Your task to perform on an android device: delete location history Image 0: 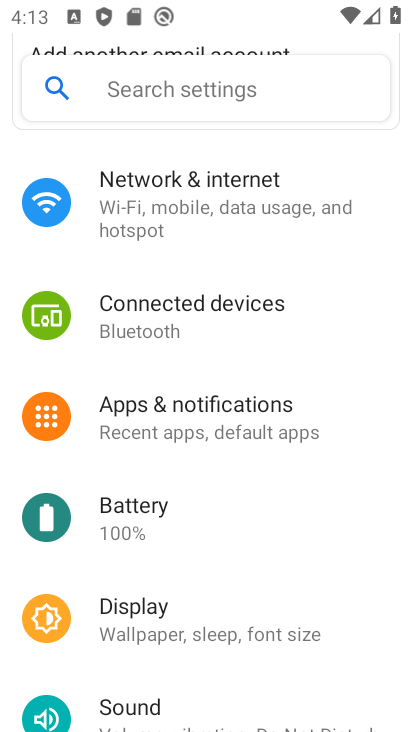
Step 0: press home button
Your task to perform on an android device: delete location history Image 1: 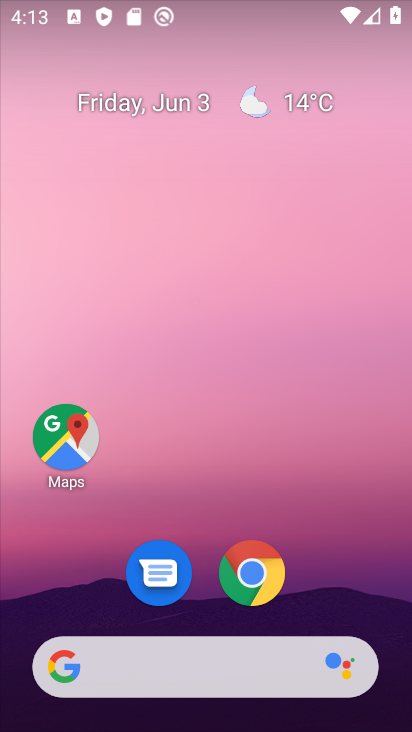
Step 1: drag from (226, 202) to (226, 1)
Your task to perform on an android device: delete location history Image 2: 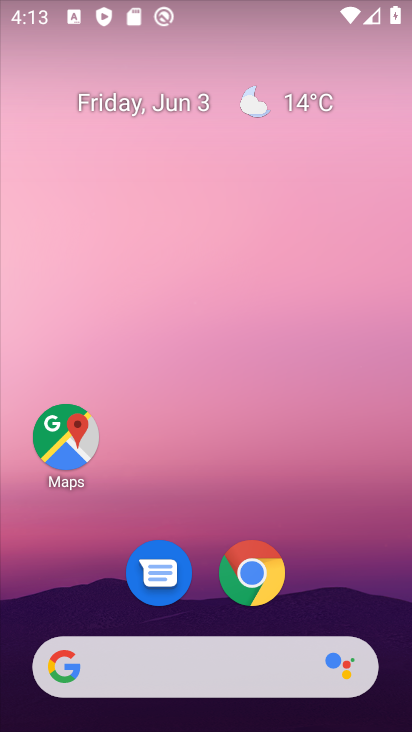
Step 2: drag from (280, 671) to (320, 27)
Your task to perform on an android device: delete location history Image 3: 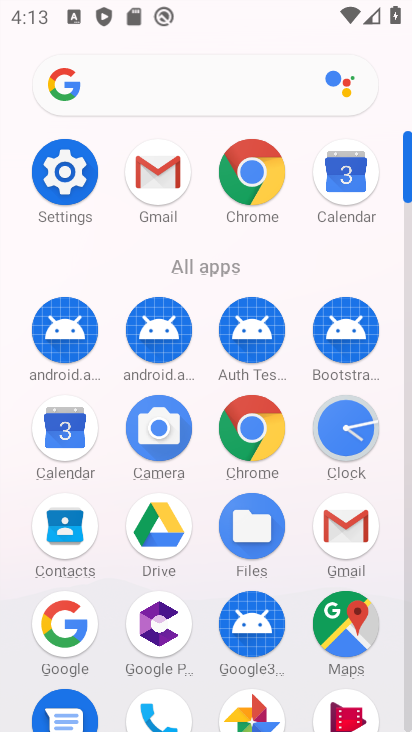
Step 3: click (88, 175)
Your task to perform on an android device: delete location history Image 4: 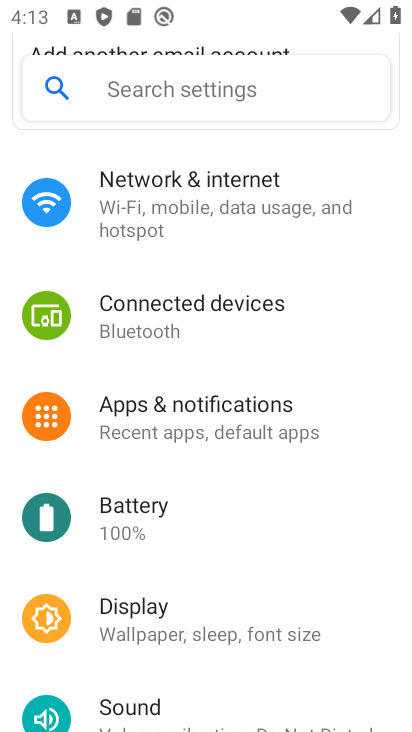
Step 4: press home button
Your task to perform on an android device: delete location history Image 5: 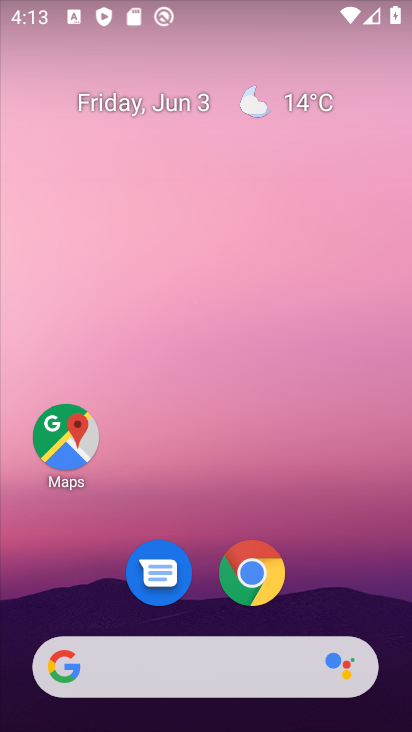
Step 5: drag from (233, 669) to (196, 53)
Your task to perform on an android device: delete location history Image 6: 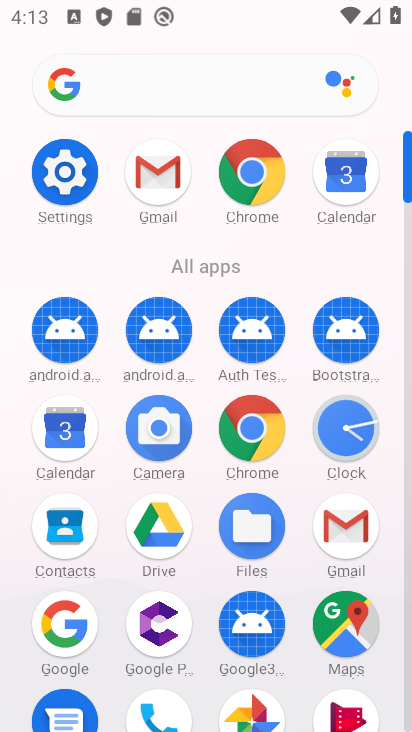
Step 6: click (348, 624)
Your task to perform on an android device: delete location history Image 7: 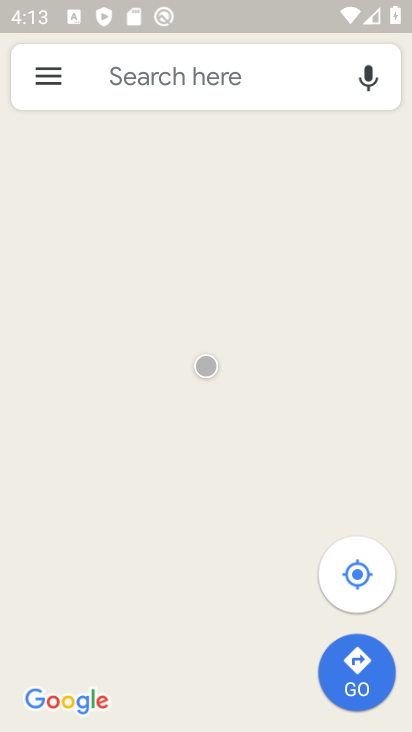
Step 7: click (46, 78)
Your task to perform on an android device: delete location history Image 8: 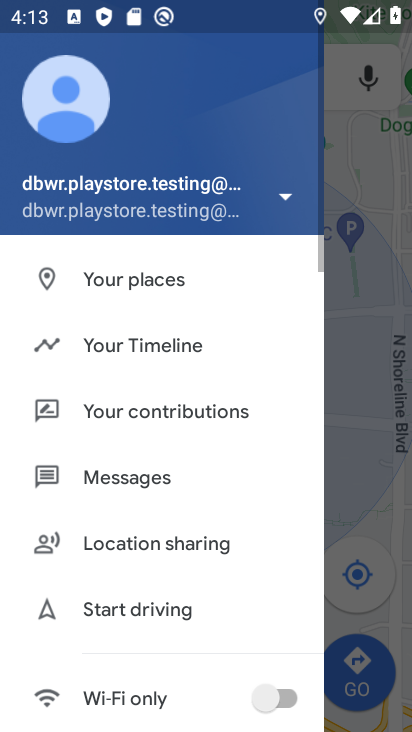
Step 8: drag from (165, 650) to (183, 395)
Your task to perform on an android device: delete location history Image 9: 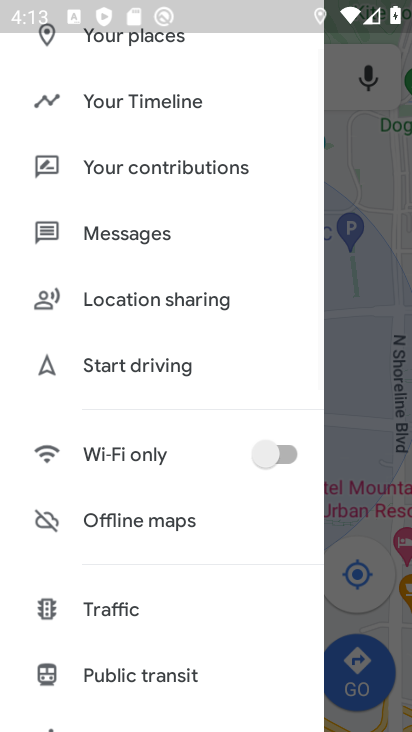
Step 9: click (168, 80)
Your task to perform on an android device: delete location history Image 10: 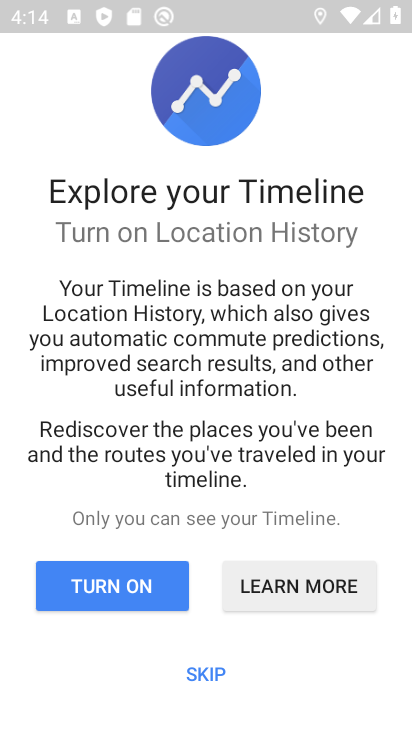
Step 10: click (202, 678)
Your task to perform on an android device: delete location history Image 11: 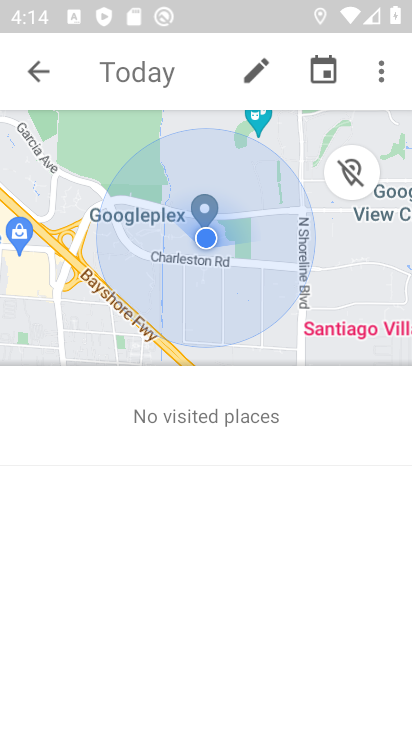
Step 11: click (377, 79)
Your task to perform on an android device: delete location history Image 12: 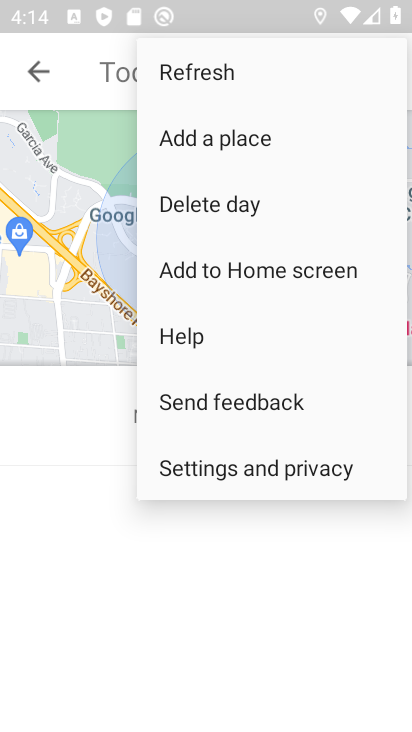
Step 12: click (266, 470)
Your task to perform on an android device: delete location history Image 13: 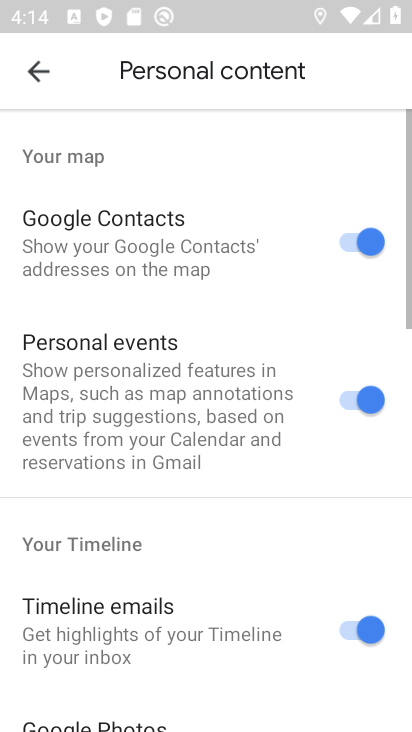
Step 13: drag from (298, 641) to (282, 7)
Your task to perform on an android device: delete location history Image 14: 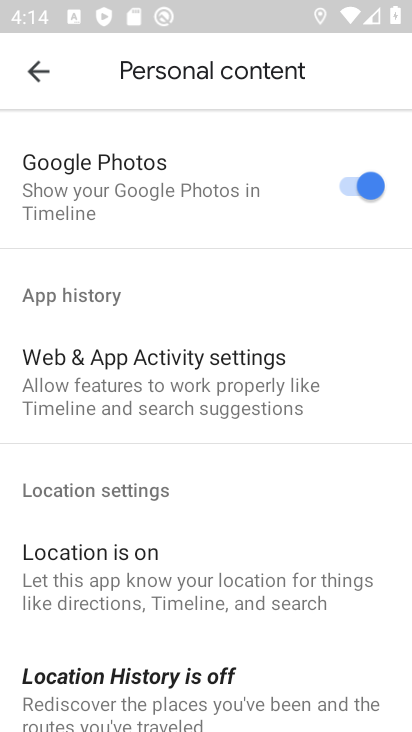
Step 14: drag from (212, 689) to (260, 215)
Your task to perform on an android device: delete location history Image 15: 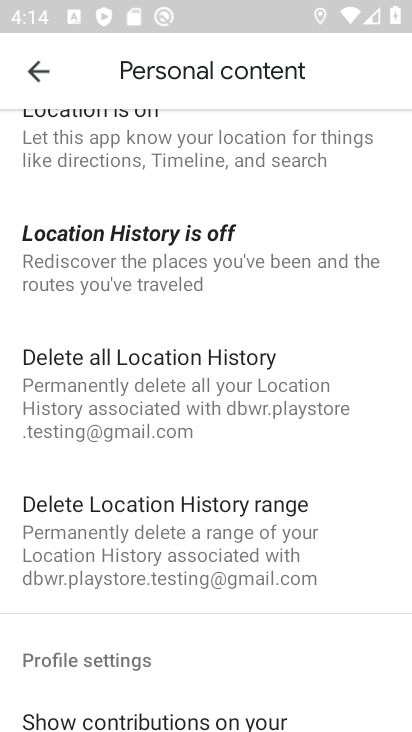
Step 15: click (213, 452)
Your task to perform on an android device: delete location history Image 16: 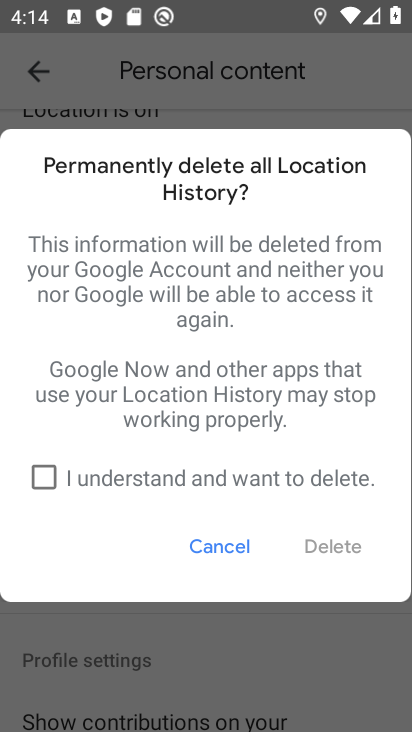
Step 16: click (33, 475)
Your task to perform on an android device: delete location history Image 17: 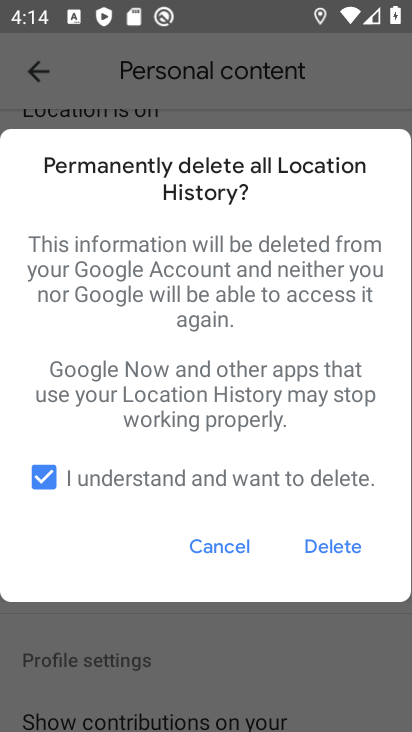
Step 17: click (349, 542)
Your task to perform on an android device: delete location history Image 18: 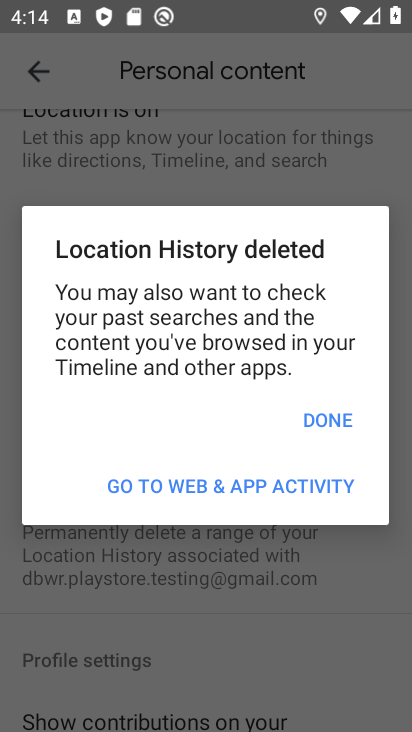
Step 18: task complete